Your task to perform on an android device: change text size in settings app Image 0: 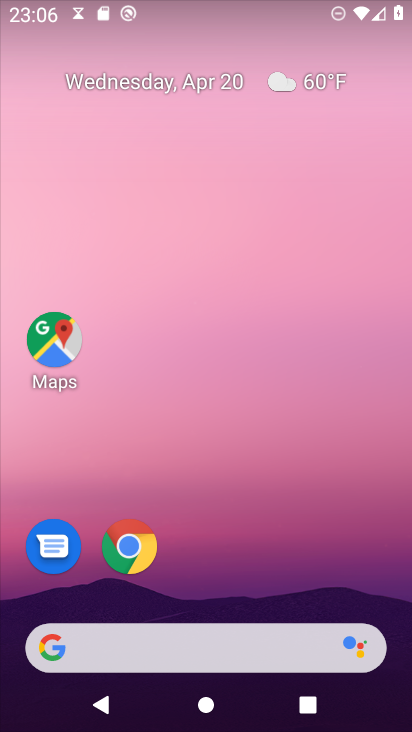
Step 0: drag from (239, 412) to (210, 45)
Your task to perform on an android device: change text size in settings app Image 1: 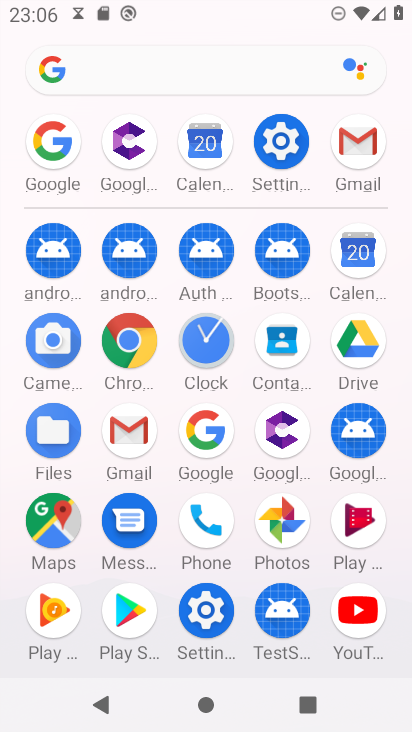
Step 1: click (282, 162)
Your task to perform on an android device: change text size in settings app Image 2: 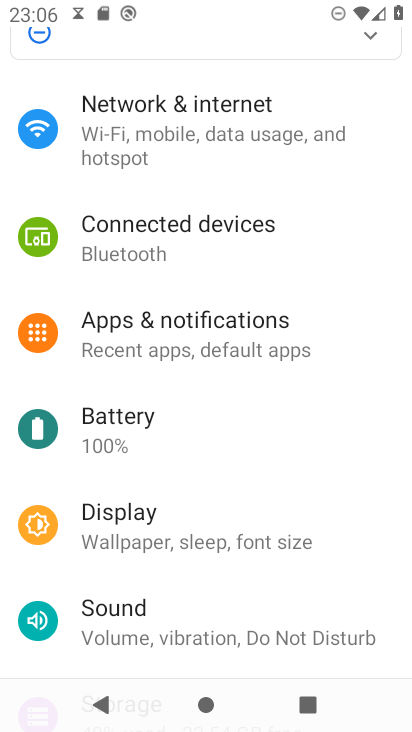
Step 2: click (199, 513)
Your task to perform on an android device: change text size in settings app Image 3: 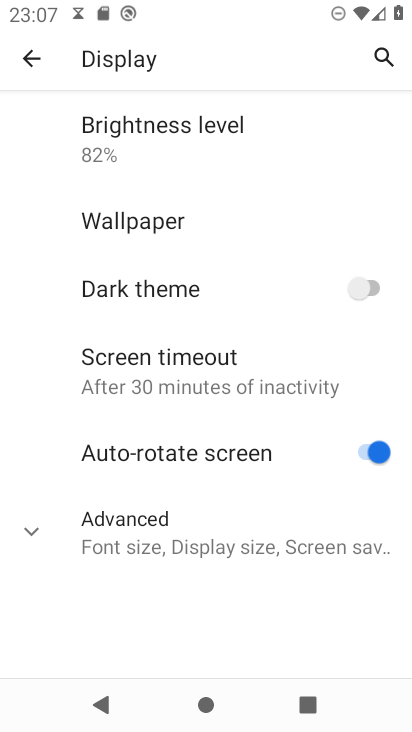
Step 3: click (149, 532)
Your task to perform on an android device: change text size in settings app Image 4: 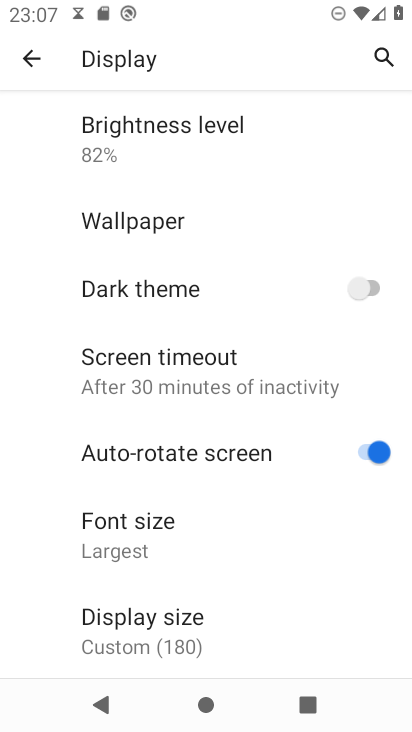
Step 4: click (185, 541)
Your task to perform on an android device: change text size in settings app Image 5: 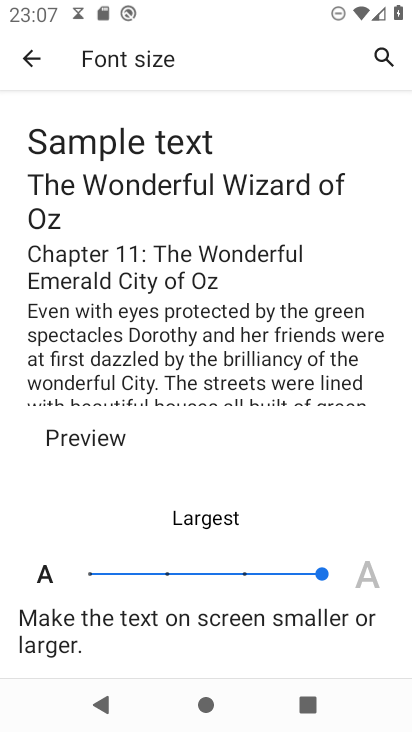
Step 5: click (239, 574)
Your task to perform on an android device: change text size in settings app Image 6: 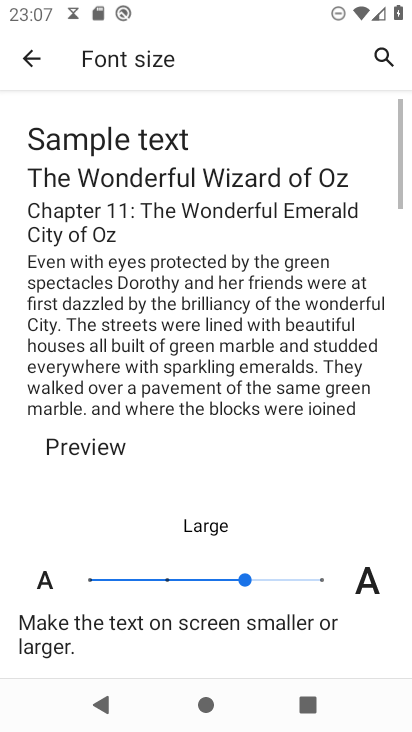
Step 6: task complete